Your task to perform on an android device: Show me the alarms in the clock app Image 0: 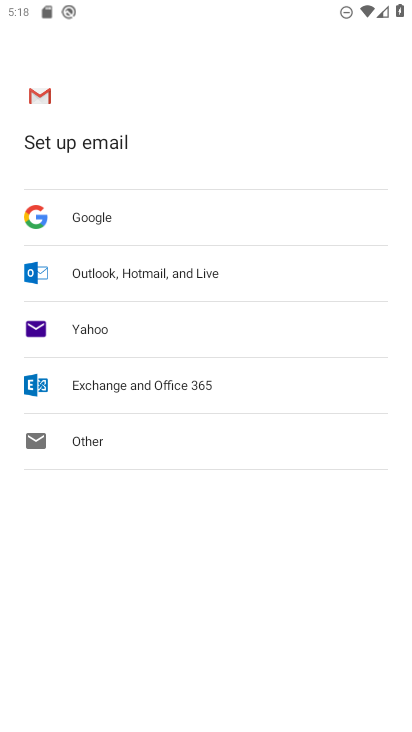
Step 0: press home button
Your task to perform on an android device: Show me the alarms in the clock app Image 1: 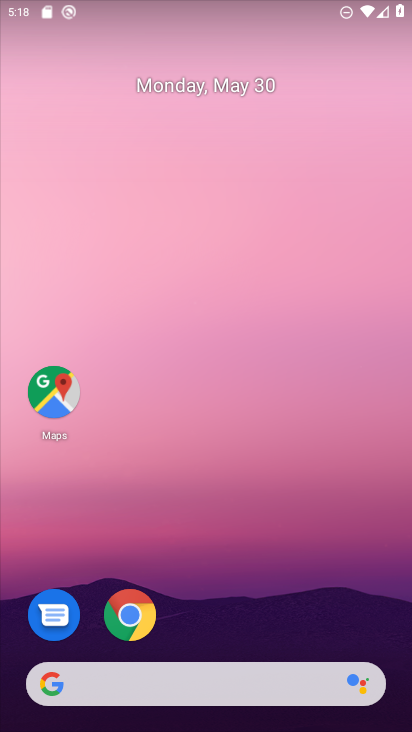
Step 1: drag from (207, 610) to (198, 53)
Your task to perform on an android device: Show me the alarms in the clock app Image 2: 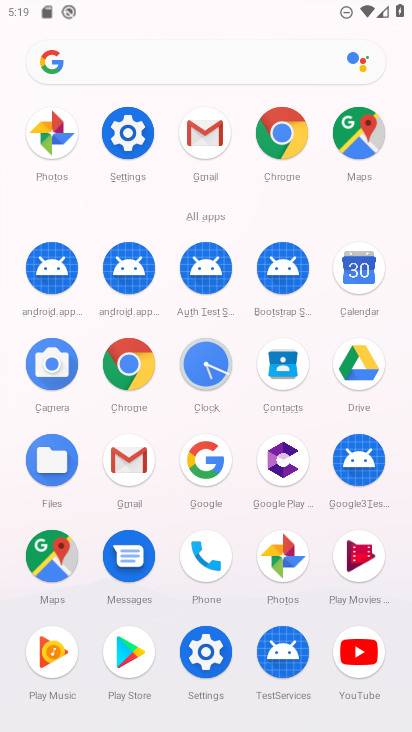
Step 2: click (208, 372)
Your task to perform on an android device: Show me the alarms in the clock app Image 3: 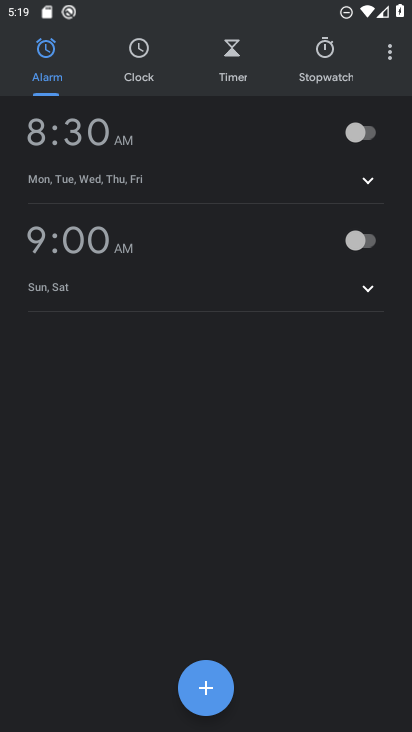
Step 3: task complete